Your task to perform on an android device: Open Chrome and go to settings Image 0: 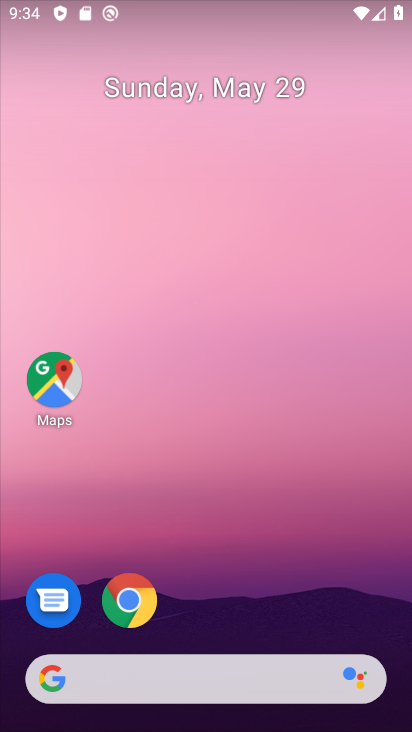
Step 0: click (135, 585)
Your task to perform on an android device: Open Chrome and go to settings Image 1: 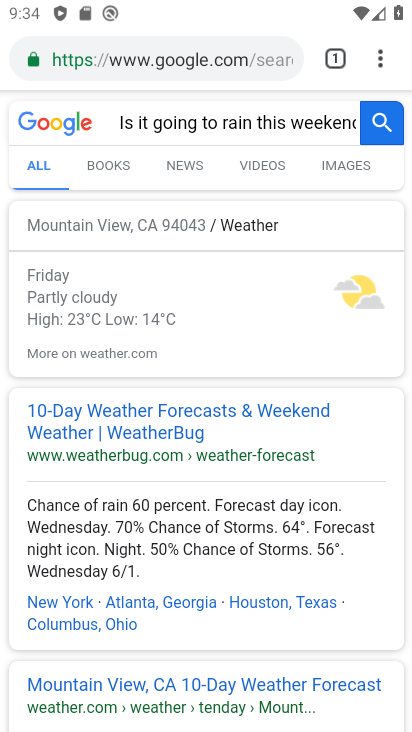
Step 1: task complete